Your task to perform on an android device: Open ESPN.com Image 0: 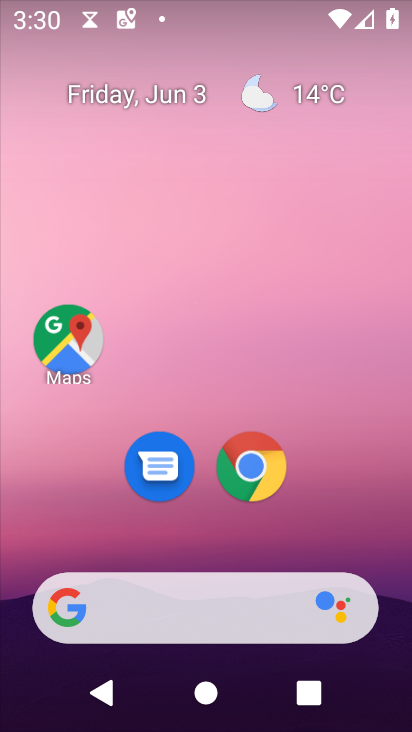
Step 0: click (269, 485)
Your task to perform on an android device: Open ESPN.com Image 1: 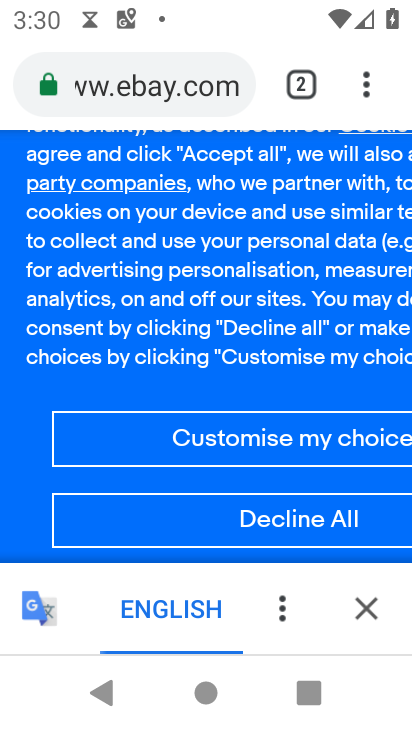
Step 1: click (308, 95)
Your task to perform on an android device: Open ESPN.com Image 2: 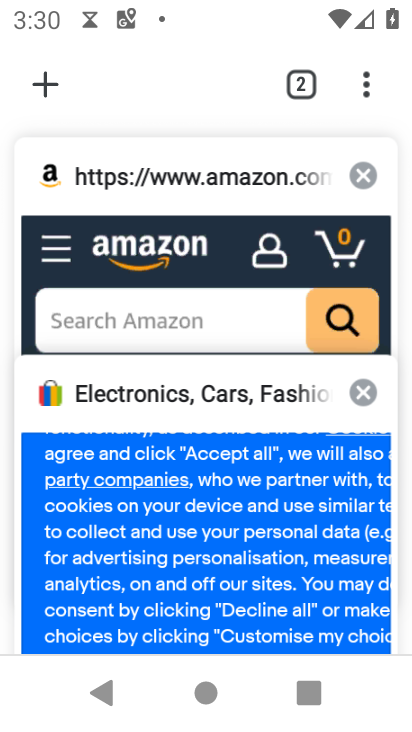
Step 2: click (53, 85)
Your task to perform on an android device: Open ESPN.com Image 3: 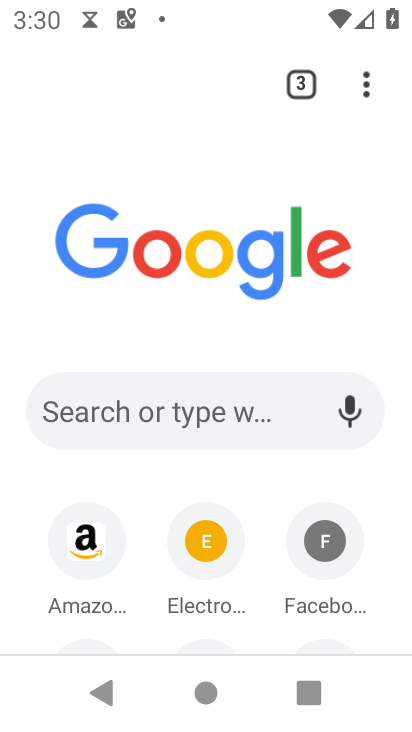
Step 3: drag from (261, 565) to (228, 318)
Your task to perform on an android device: Open ESPN.com Image 4: 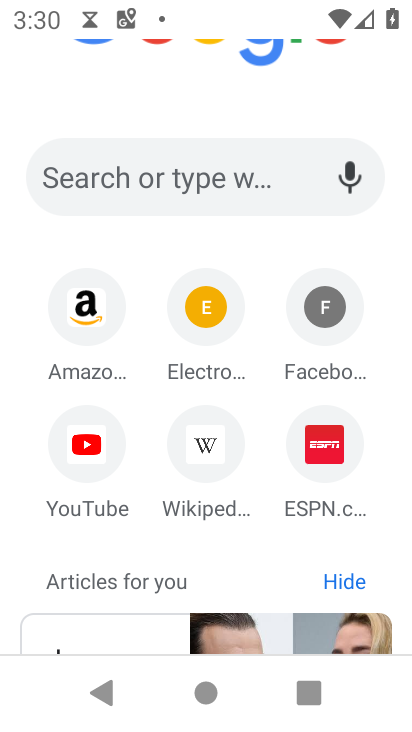
Step 4: click (312, 457)
Your task to perform on an android device: Open ESPN.com Image 5: 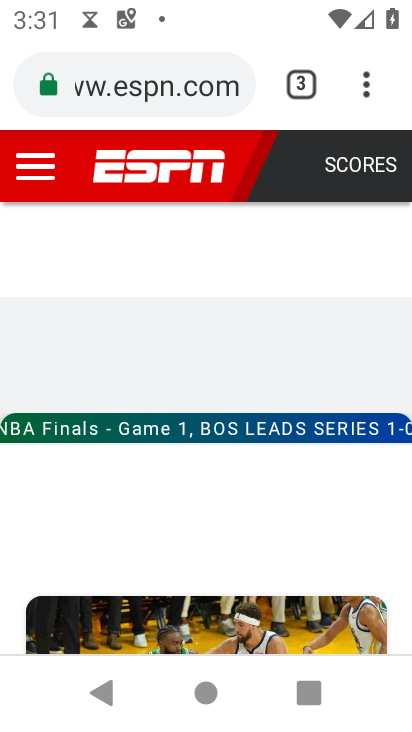
Step 5: task complete